Your task to perform on an android device: Open Chrome and go to the settings page Image 0: 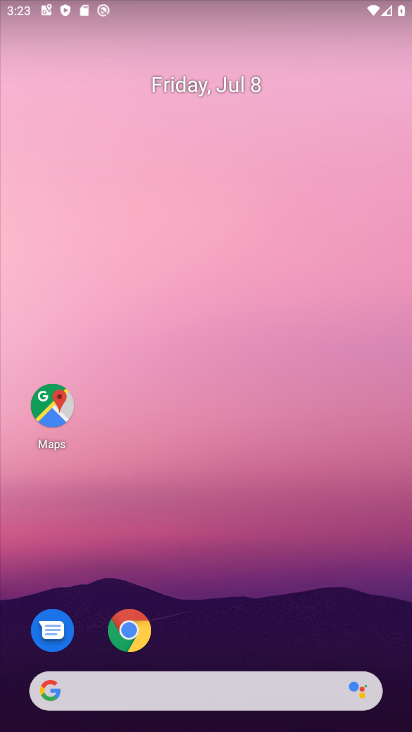
Step 0: click (144, 622)
Your task to perform on an android device: Open Chrome and go to the settings page Image 1: 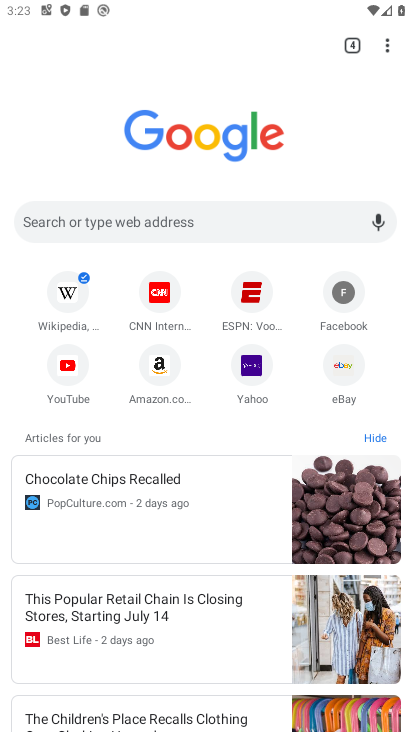
Step 1: click (386, 55)
Your task to perform on an android device: Open Chrome and go to the settings page Image 2: 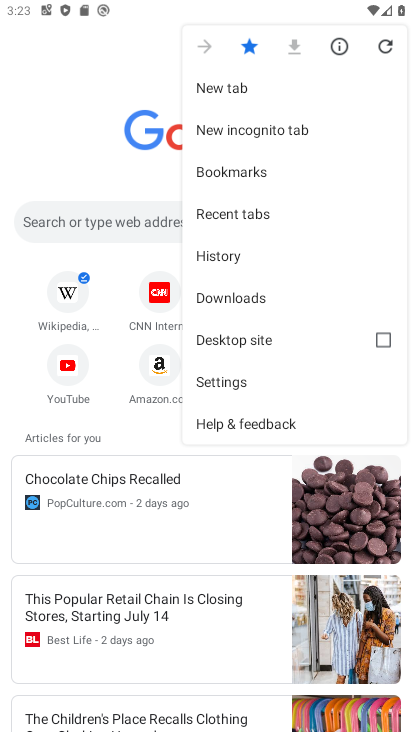
Step 2: click (245, 383)
Your task to perform on an android device: Open Chrome and go to the settings page Image 3: 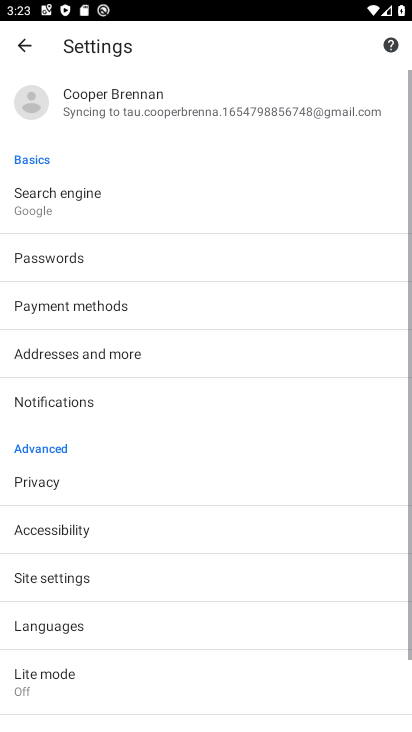
Step 3: task complete